Your task to perform on an android device: turn on location history Image 0: 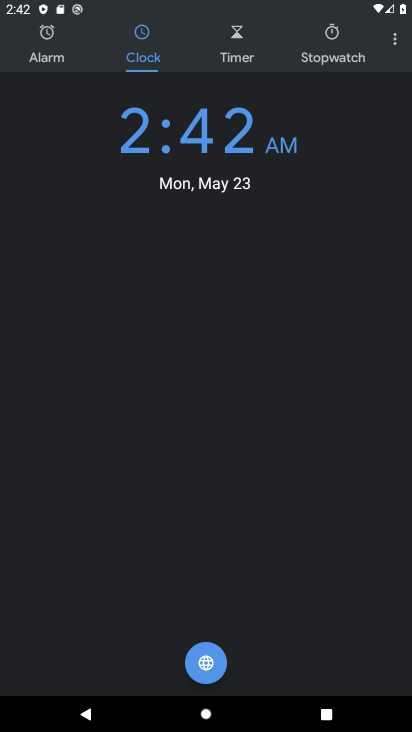
Step 0: drag from (328, 611) to (347, 173)
Your task to perform on an android device: turn on location history Image 1: 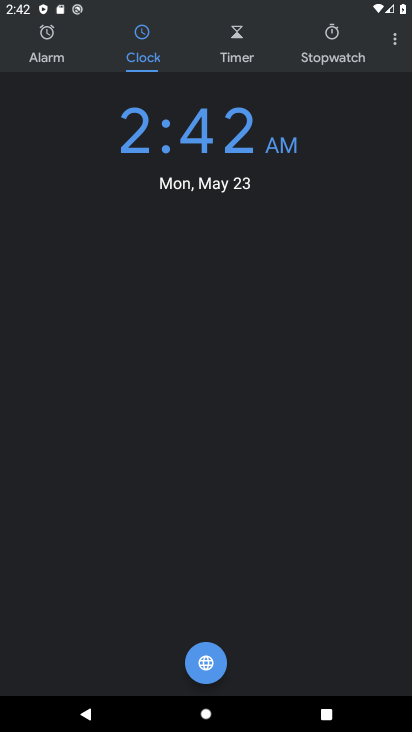
Step 1: drag from (338, 641) to (339, 152)
Your task to perform on an android device: turn on location history Image 2: 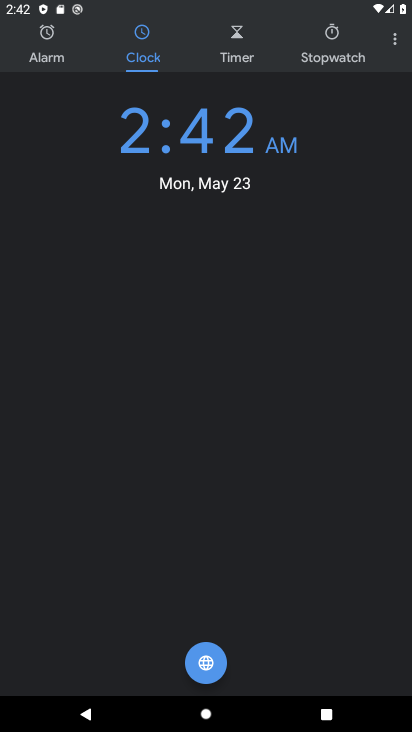
Step 2: press home button
Your task to perform on an android device: turn on location history Image 3: 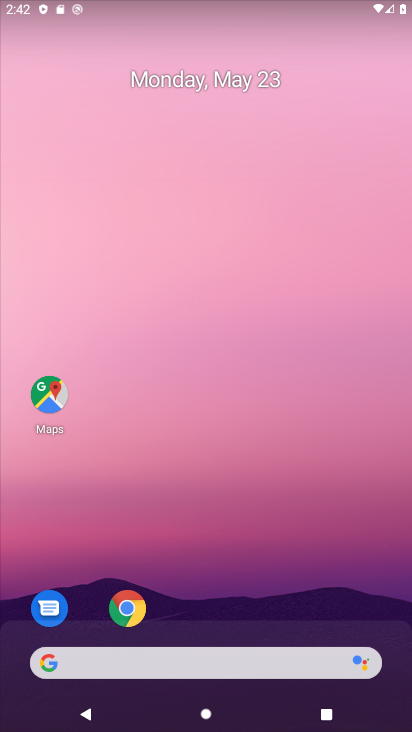
Step 3: drag from (340, 570) to (360, 144)
Your task to perform on an android device: turn on location history Image 4: 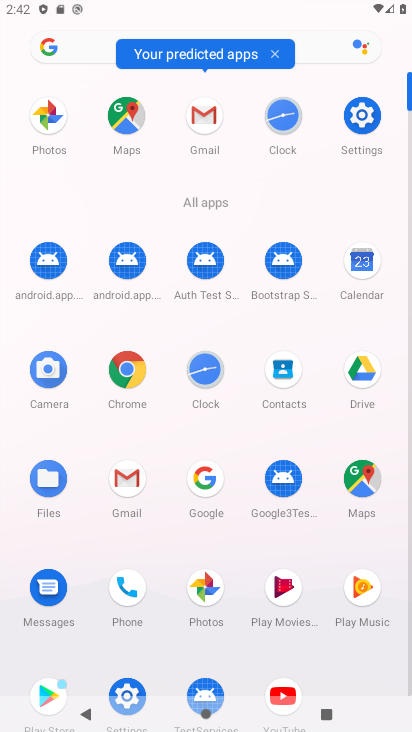
Step 4: click (373, 117)
Your task to perform on an android device: turn on location history Image 5: 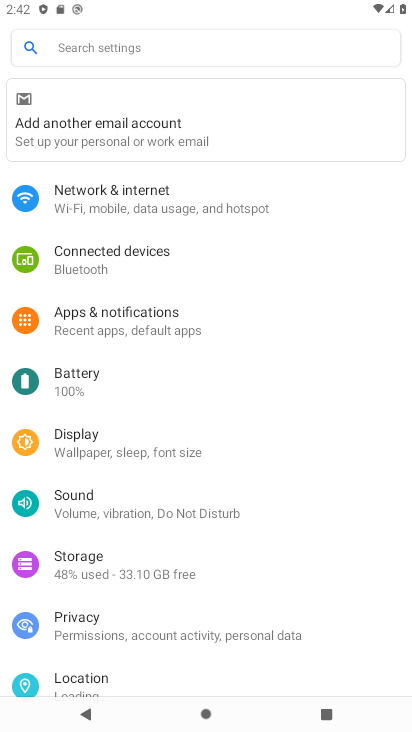
Step 5: click (126, 680)
Your task to perform on an android device: turn on location history Image 6: 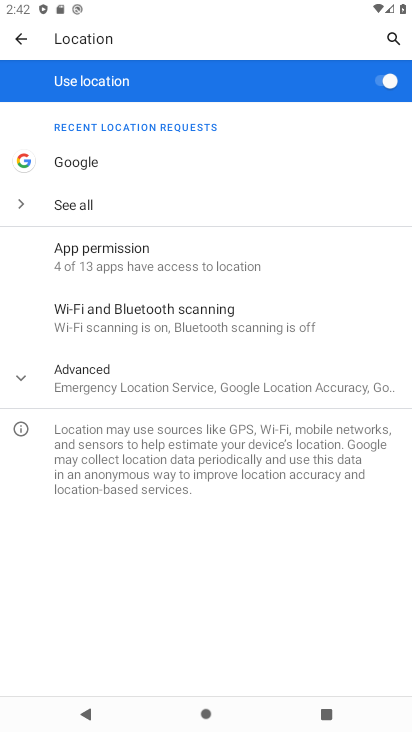
Step 6: click (142, 388)
Your task to perform on an android device: turn on location history Image 7: 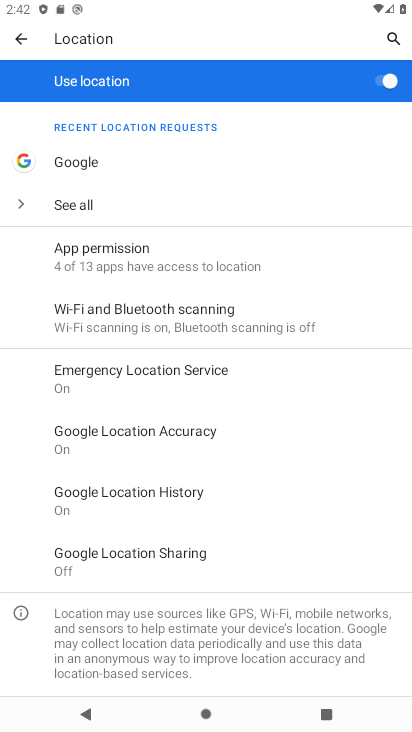
Step 7: click (165, 489)
Your task to perform on an android device: turn on location history Image 8: 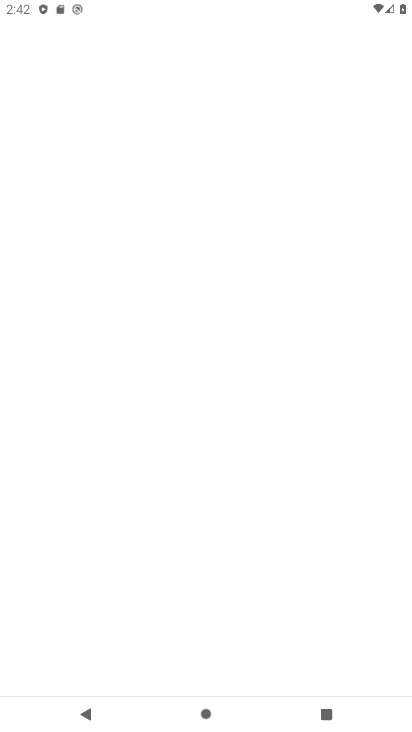
Step 8: task complete